Your task to perform on an android device: Open battery settings Image 0: 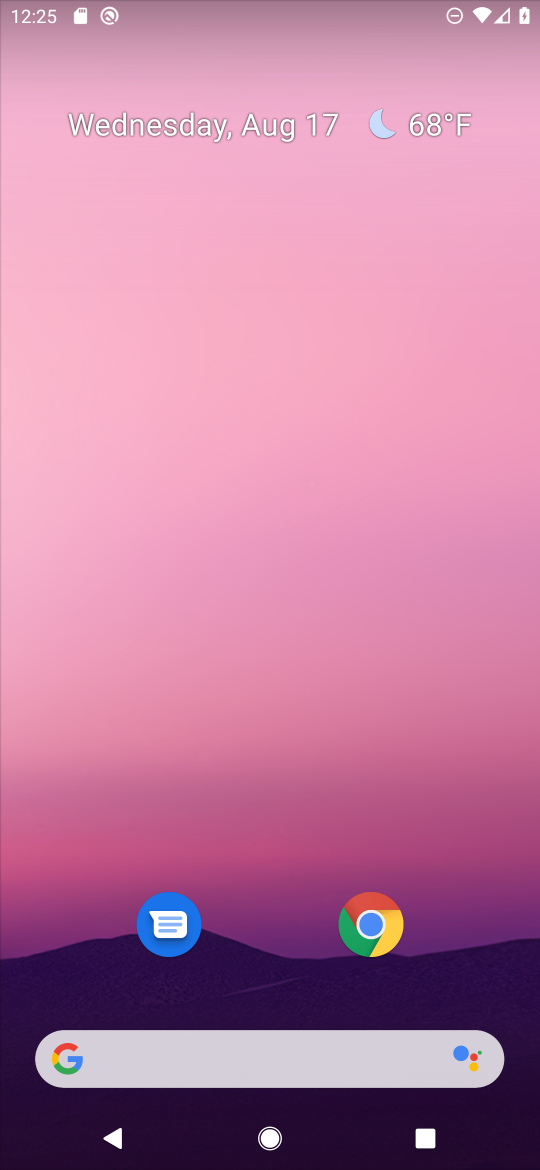
Step 0: drag from (278, 17) to (312, 774)
Your task to perform on an android device: Open battery settings Image 1: 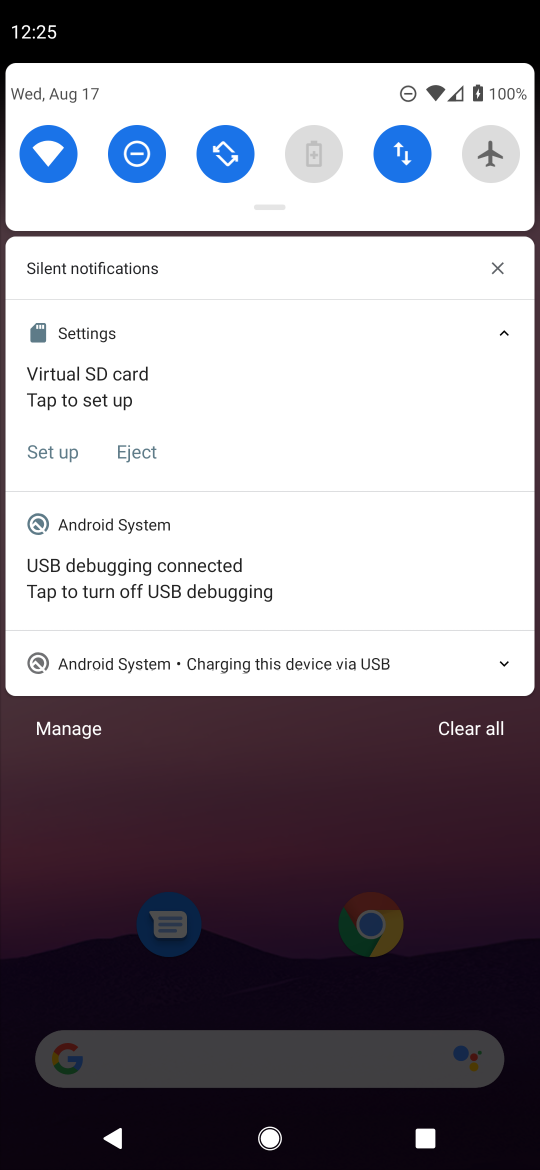
Step 1: click (315, 164)
Your task to perform on an android device: Open battery settings Image 2: 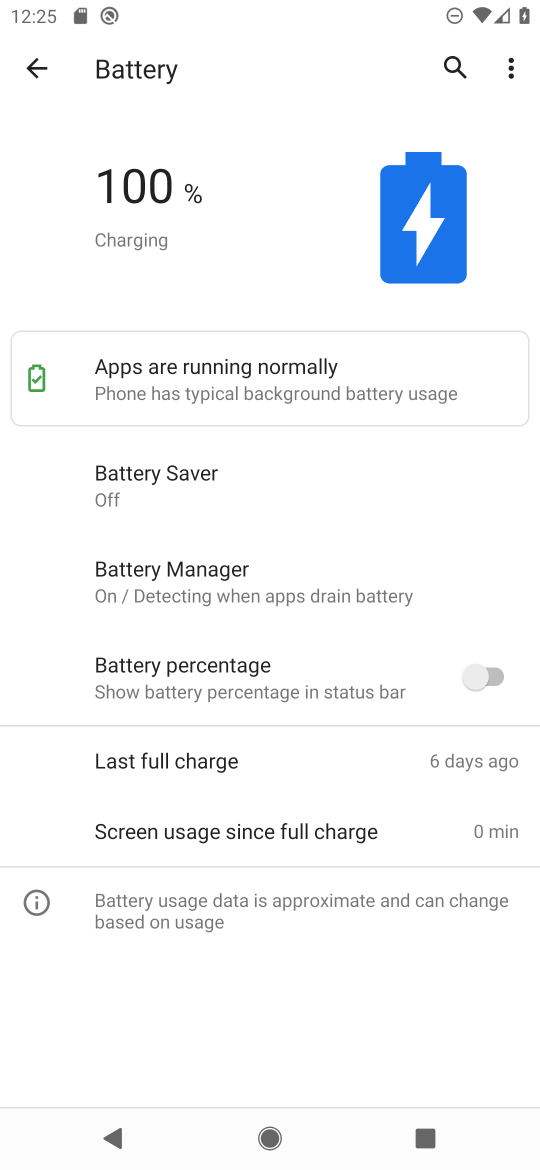
Step 2: task complete